Your task to perform on an android device: remove spam from my inbox in the gmail app Image 0: 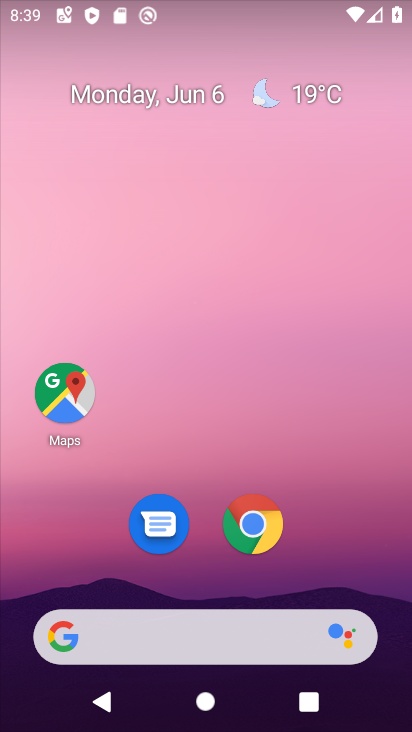
Step 0: drag from (203, 433) to (222, 14)
Your task to perform on an android device: remove spam from my inbox in the gmail app Image 1: 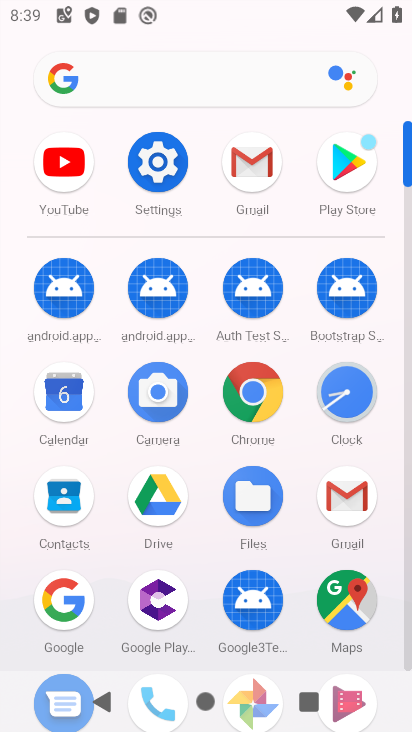
Step 1: click (254, 175)
Your task to perform on an android device: remove spam from my inbox in the gmail app Image 2: 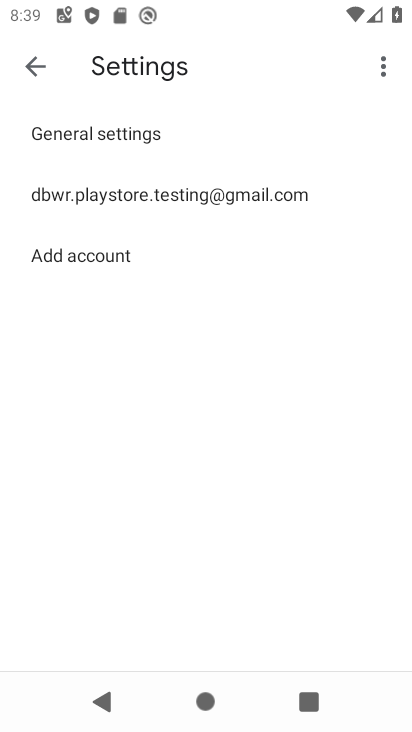
Step 2: click (40, 58)
Your task to perform on an android device: remove spam from my inbox in the gmail app Image 3: 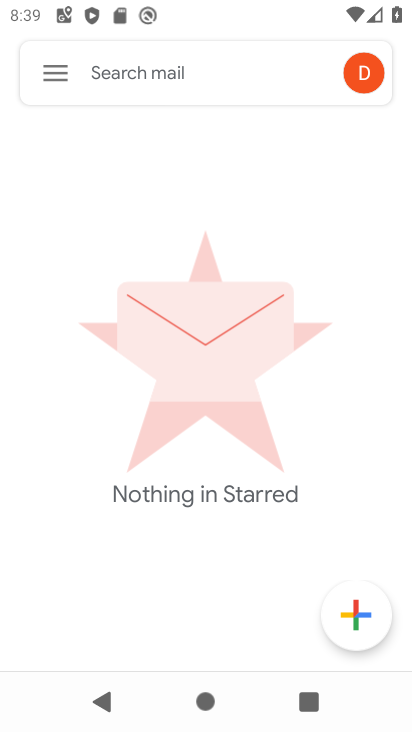
Step 3: click (49, 73)
Your task to perform on an android device: remove spam from my inbox in the gmail app Image 4: 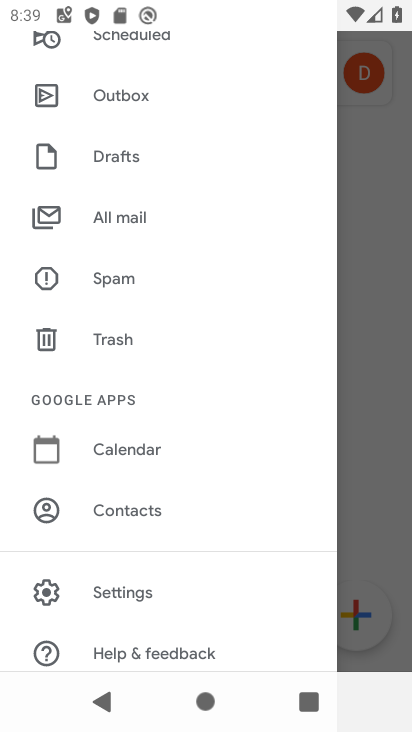
Step 4: click (119, 209)
Your task to perform on an android device: remove spam from my inbox in the gmail app Image 5: 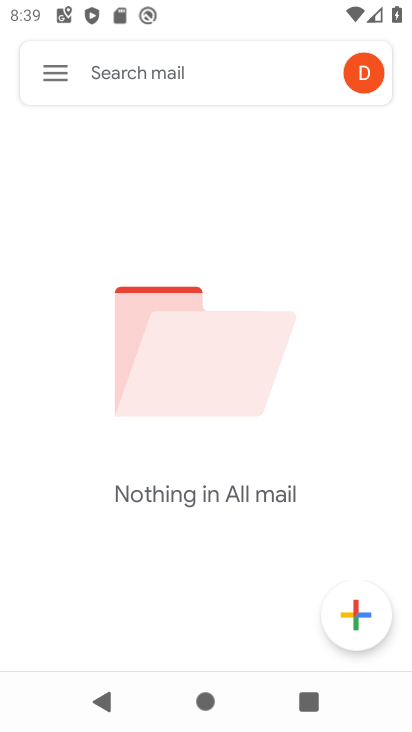
Step 5: task complete